Your task to perform on an android device: Go to Yahoo.com Image 0: 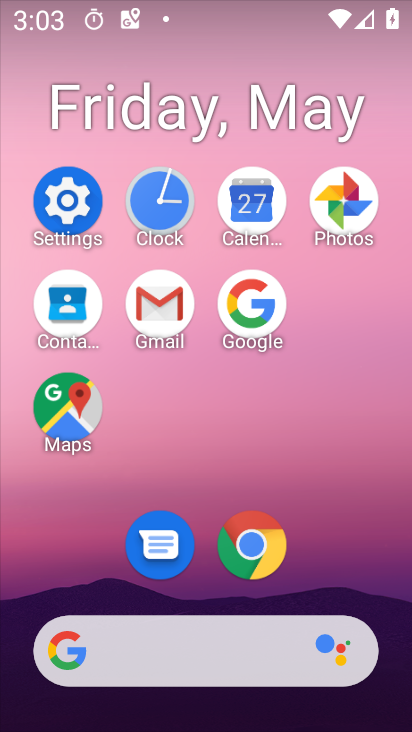
Step 0: click (261, 534)
Your task to perform on an android device: Go to Yahoo.com Image 1: 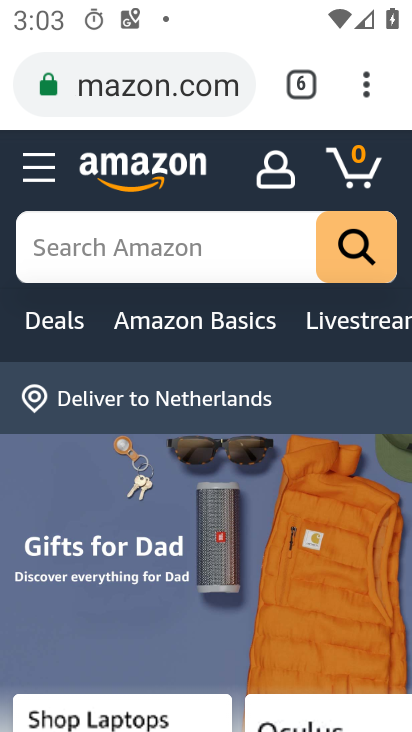
Step 1: click (311, 106)
Your task to perform on an android device: Go to Yahoo.com Image 2: 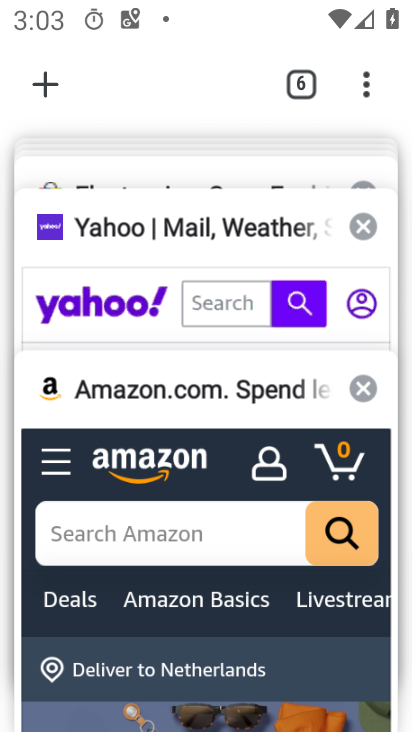
Step 2: click (32, 109)
Your task to perform on an android device: Go to Yahoo.com Image 3: 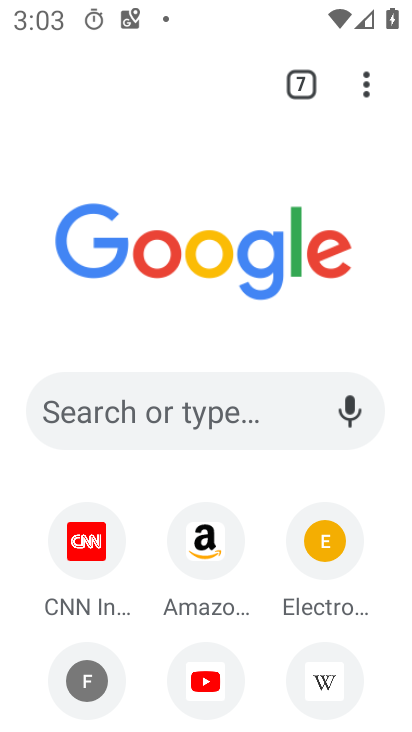
Step 3: click (208, 386)
Your task to perform on an android device: Go to Yahoo.com Image 4: 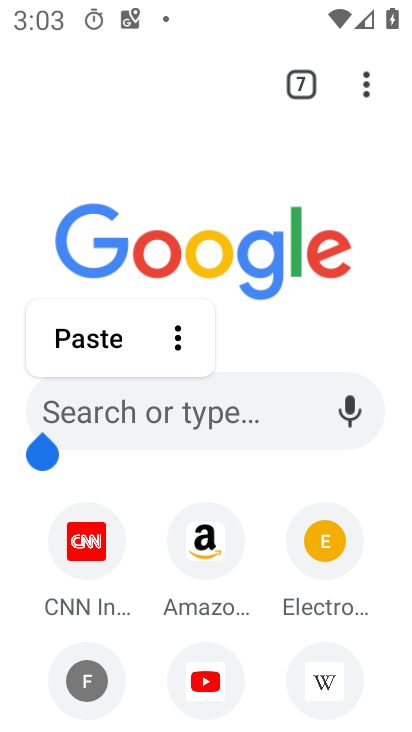
Step 4: click (267, 403)
Your task to perform on an android device: Go to Yahoo.com Image 5: 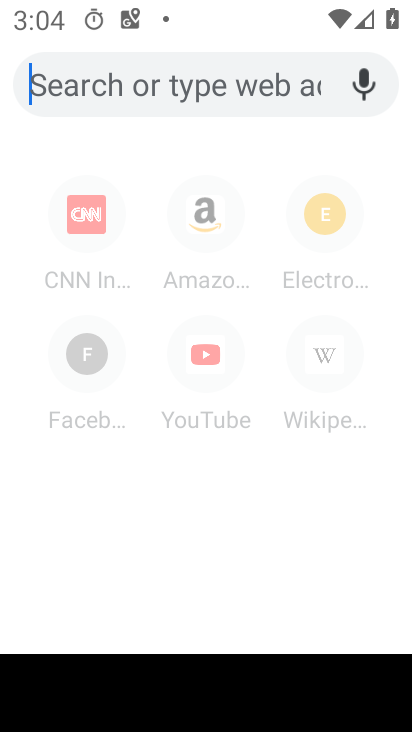
Step 5: type "yahoo"
Your task to perform on an android device: Go to Yahoo.com Image 6: 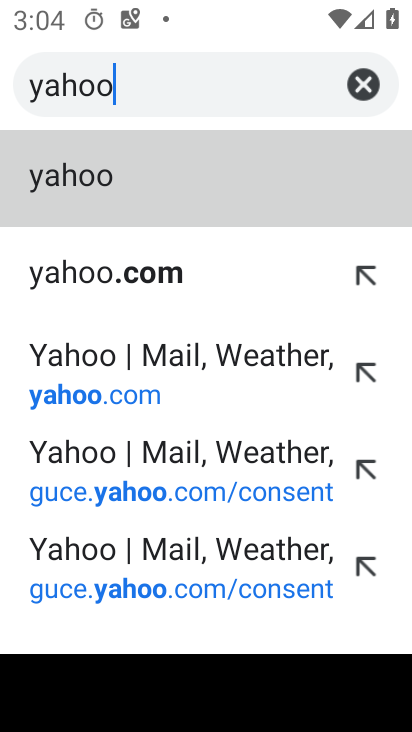
Step 6: click (206, 278)
Your task to perform on an android device: Go to Yahoo.com Image 7: 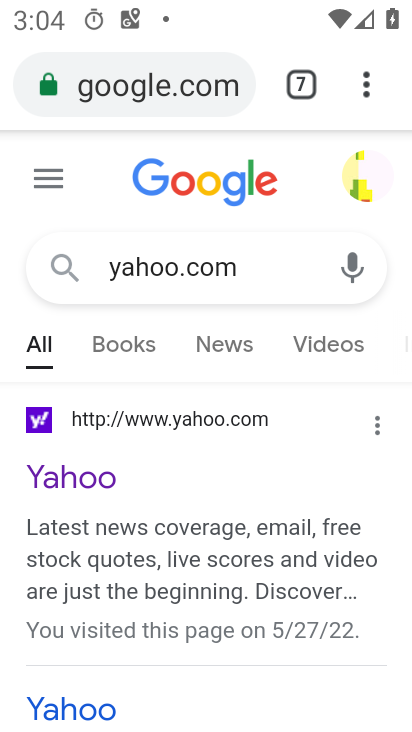
Step 7: click (73, 480)
Your task to perform on an android device: Go to Yahoo.com Image 8: 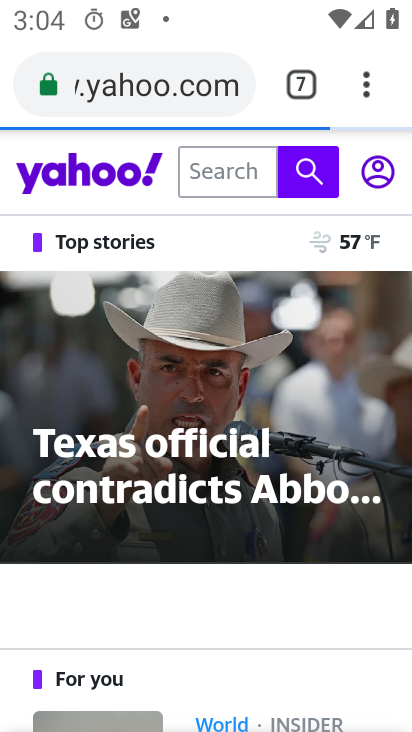
Step 8: task complete